Your task to perform on an android device: snooze an email in the gmail app Image 0: 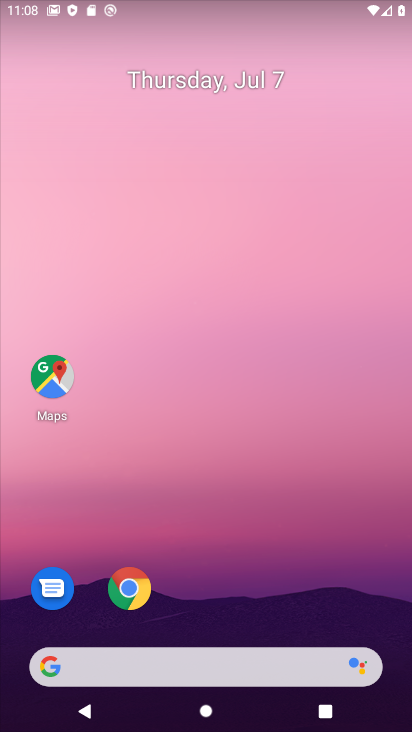
Step 0: drag from (224, 596) to (238, 60)
Your task to perform on an android device: snooze an email in the gmail app Image 1: 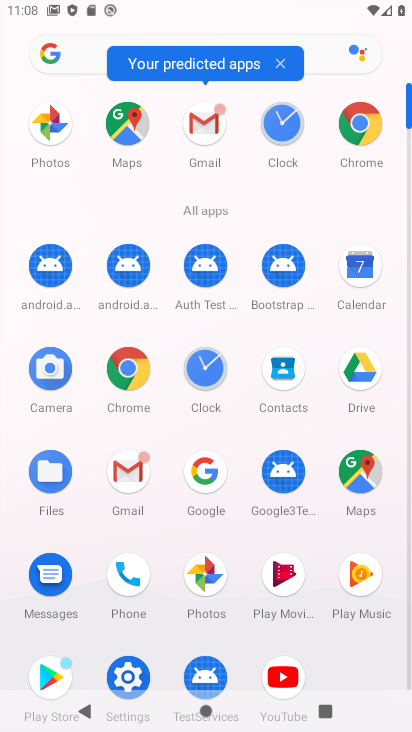
Step 1: click (131, 471)
Your task to perform on an android device: snooze an email in the gmail app Image 2: 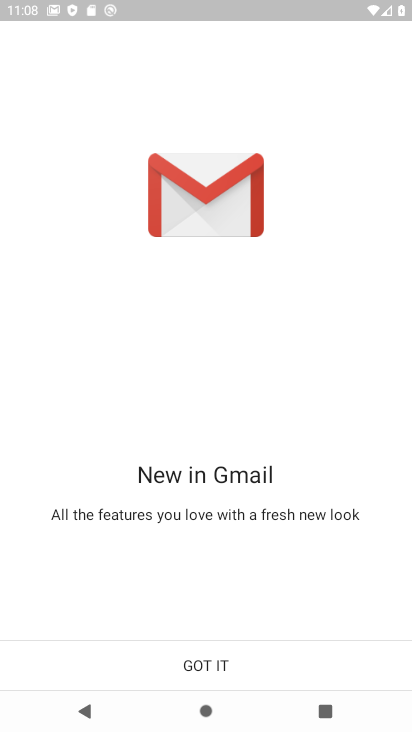
Step 2: click (220, 667)
Your task to perform on an android device: snooze an email in the gmail app Image 3: 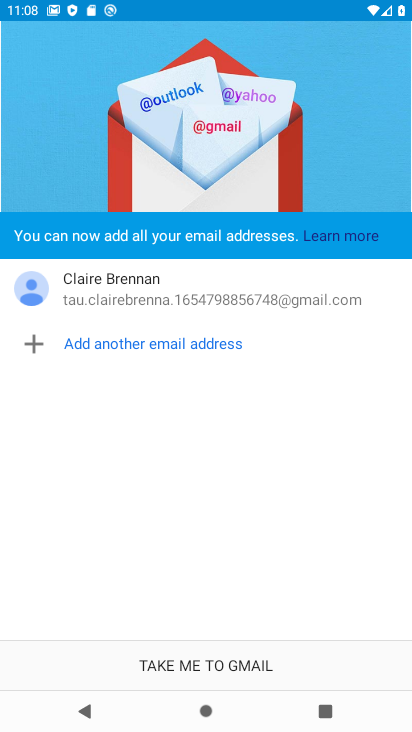
Step 3: click (223, 665)
Your task to perform on an android device: snooze an email in the gmail app Image 4: 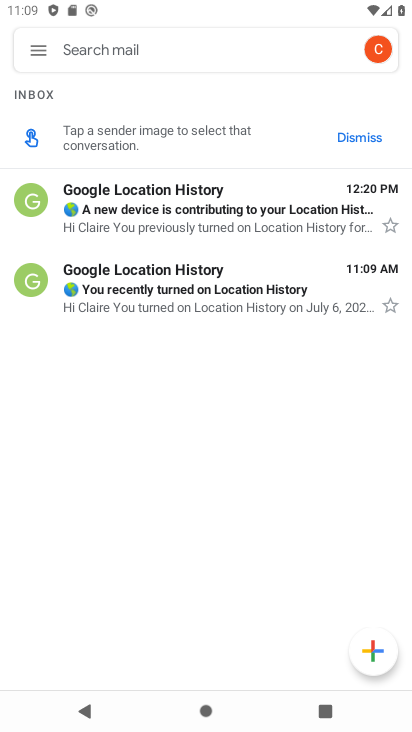
Step 4: click (198, 207)
Your task to perform on an android device: snooze an email in the gmail app Image 5: 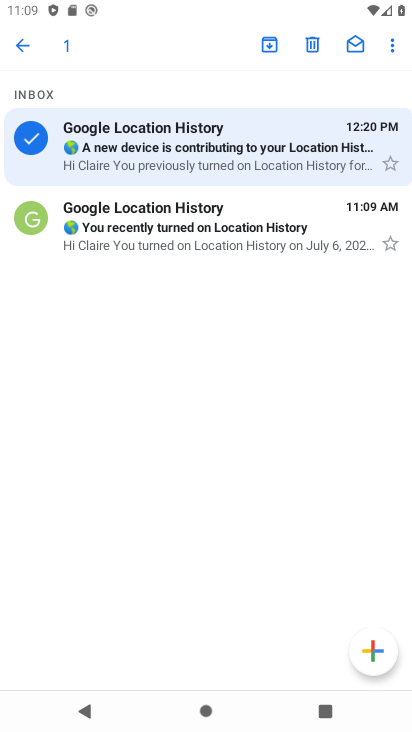
Step 5: click (386, 52)
Your task to perform on an android device: snooze an email in the gmail app Image 6: 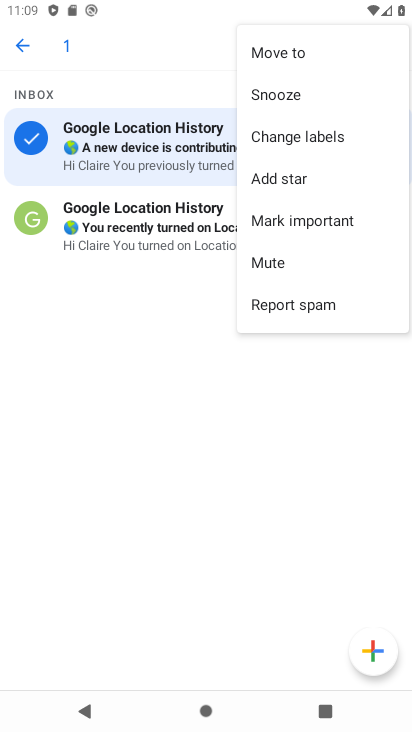
Step 6: click (309, 101)
Your task to perform on an android device: snooze an email in the gmail app Image 7: 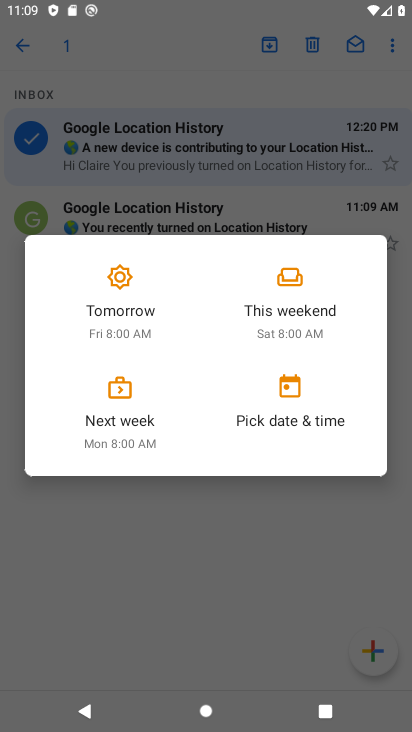
Step 7: click (141, 319)
Your task to perform on an android device: snooze an email in the gmail app Image 8: 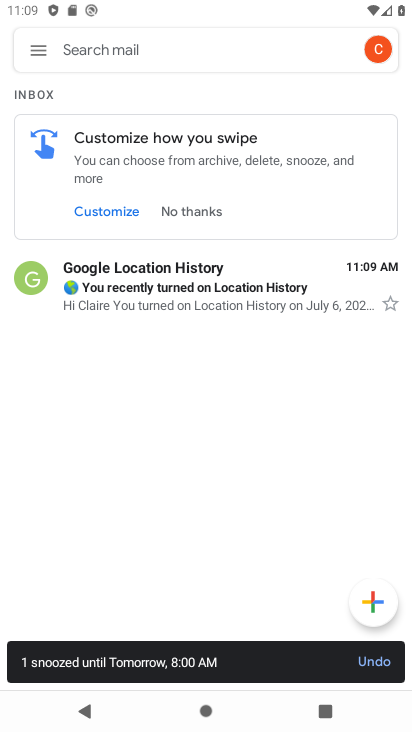
Step 8: task complete